Your task to perform on an android device: Open Wikipedia Image 0: 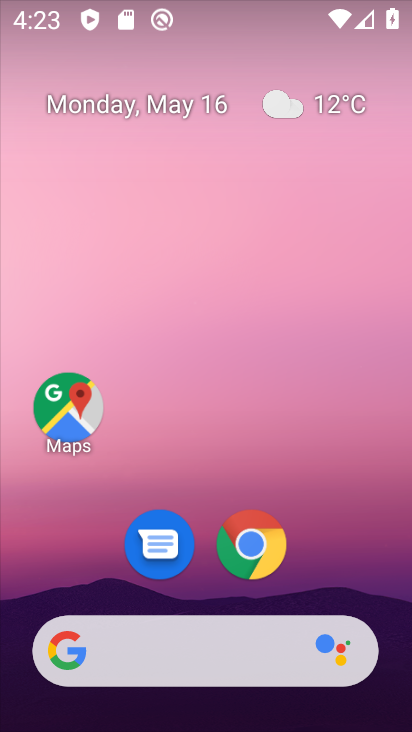
Step 0: click (252, 534)
Your task to perform on an android device: Open Wikipedia Image 1: 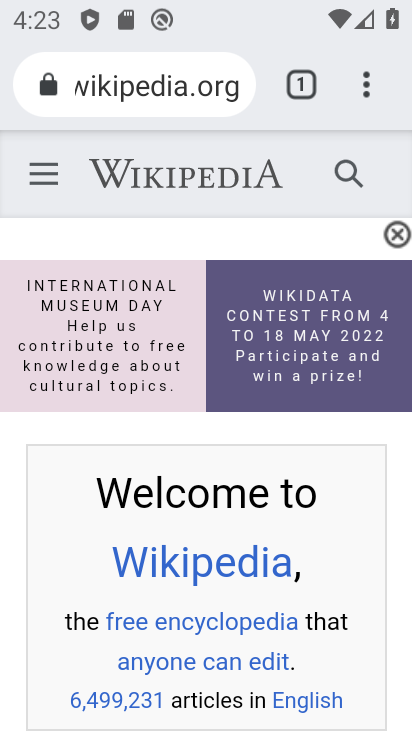
Step 1: click (187, 88)
Your task to perform on an android device: Open Wikipedia Image 2: 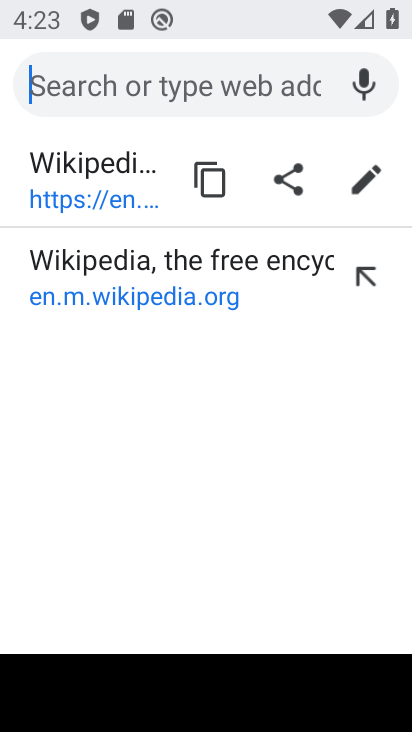
Step 2: click (97, 164)
Your task to perform on an android device: Open Wikipedia Image 3: 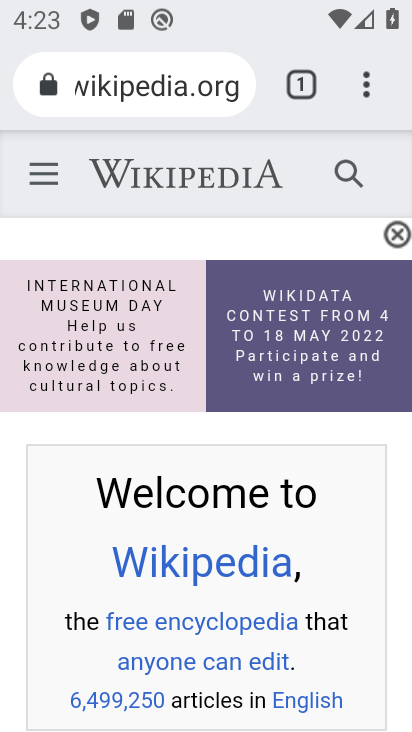
Step 3: task complete